Your task to perform on an android device: open sync settings in chrome Image 0: 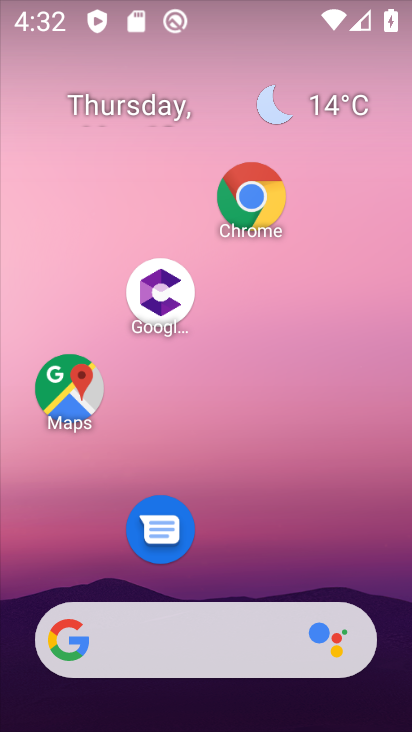
Step 0: click (260, 186)
Your task to perform on an android device: open sync settings in chrome Image 1: 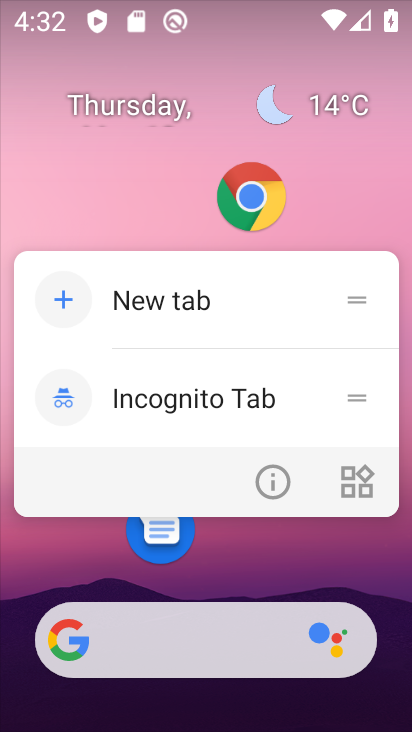
Step 1: click (245, 192)
Your task to perform on an android device: open sync settings in chrome Image 2: 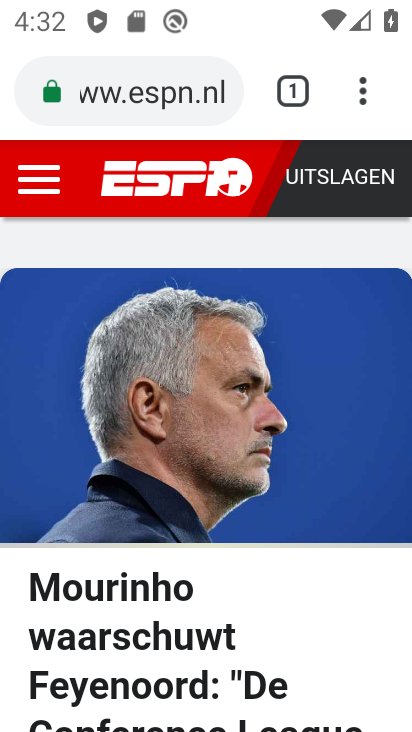
Step 2: click (368, 101)
Your task to perform on an android device: open sync settings in chrome Image 3: 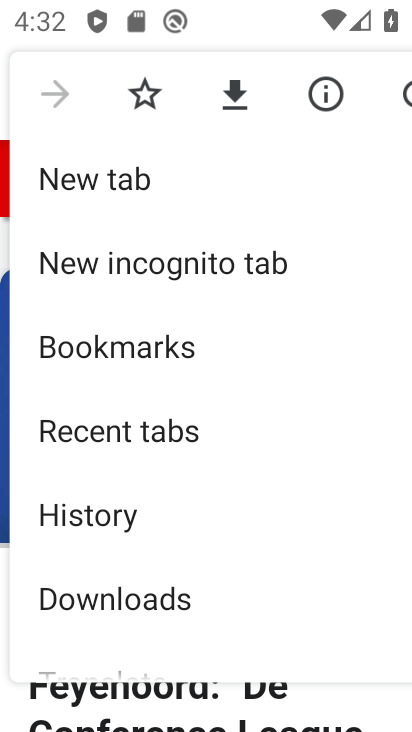
Step 3: drag from (262, 604) to (290, 128)
Your task to perform on an android device: open sync settings in chrome Image 4: 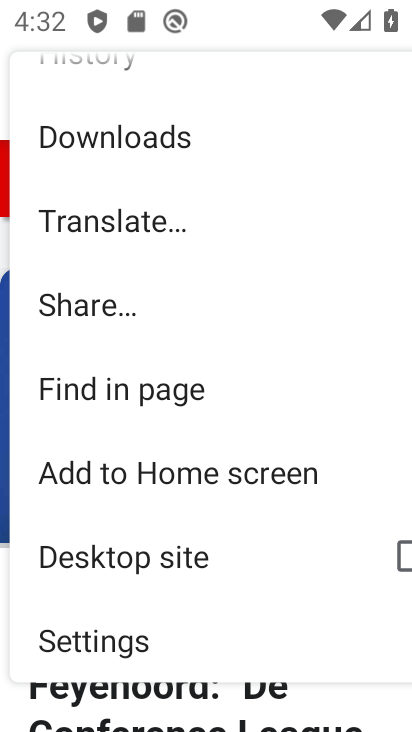
Step 4: click (166, 643)
Your task to perform on an android device: open sync settings in chrome Image 5: 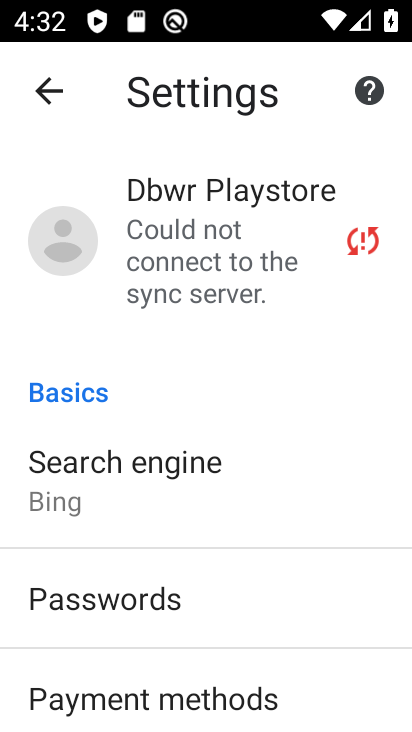
Step 5: click (232, 254)
Your task to perform on an android device: open sync settings in chrome Image 6: 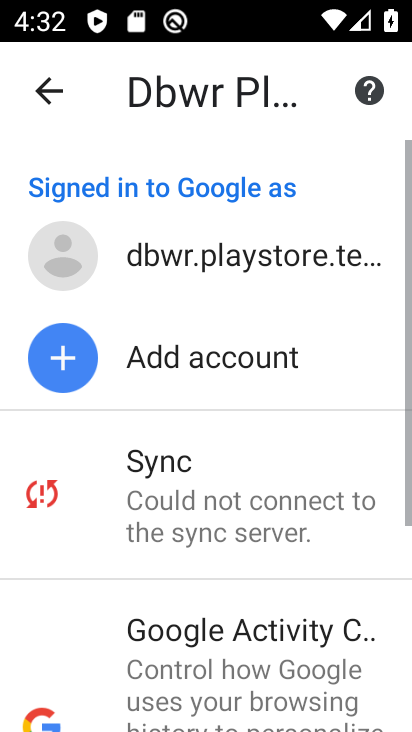
Step 6: click (173, 468)
Your task to perform on an android device: open sync settings in chrome Image 7: 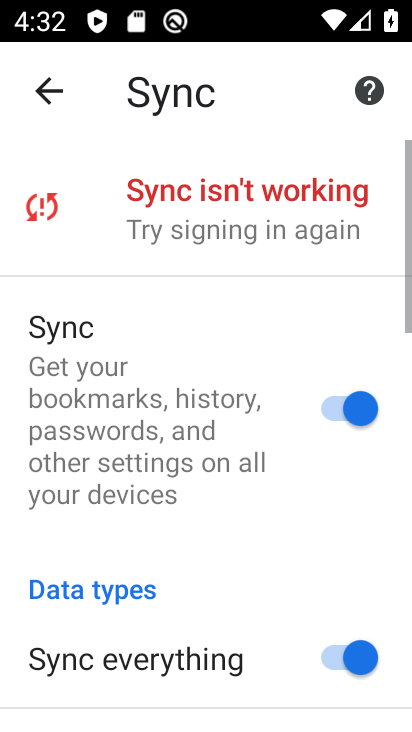
Step 7: task complete